Your task to perform on an android device: turn on location history Image 0: 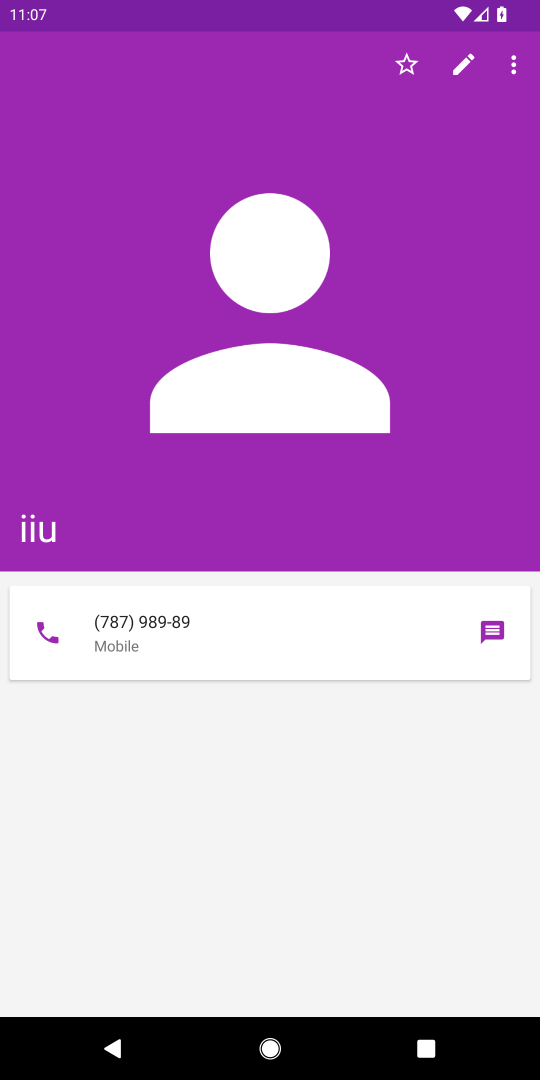
Step 0: press home button
Your task to perform on an android device: turn on location history Image 1: 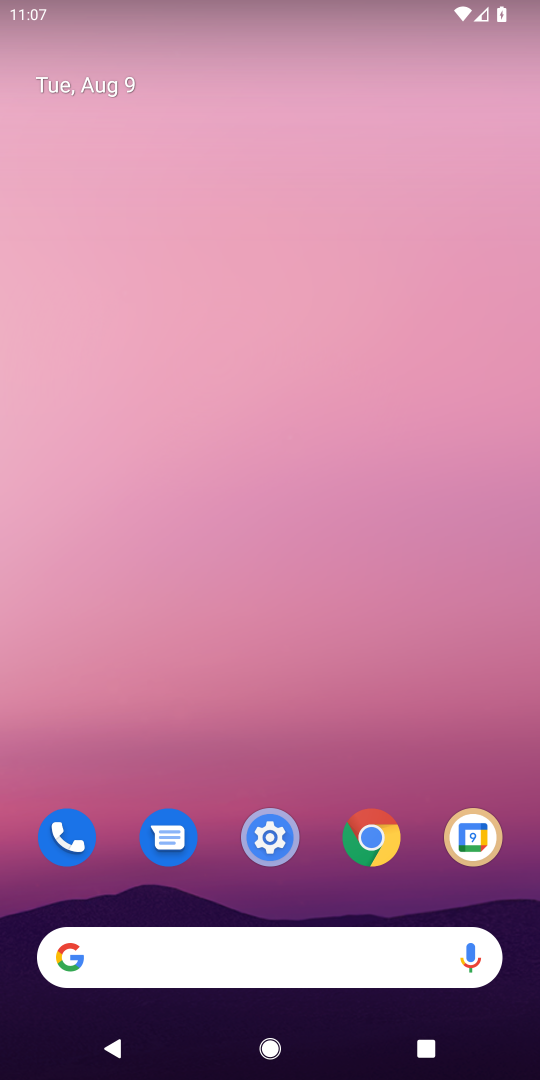
Step 1: drag from (323, 863) to (310, 202)
Your task to perform on an android device: turn on location history Image 2: 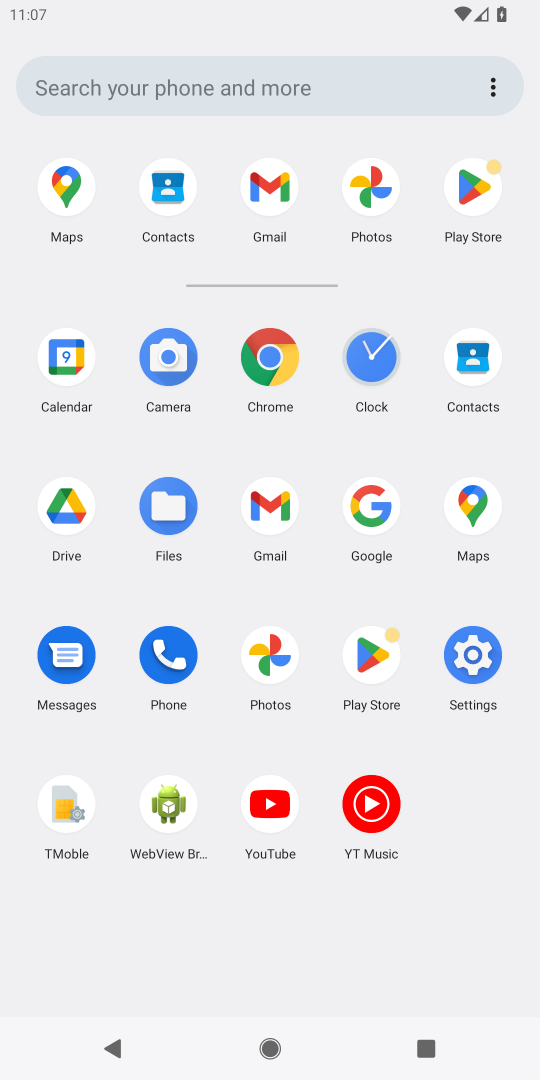
Step 2: click (471, 646)
Your task to perform on an android device: turn on location history Image 3: 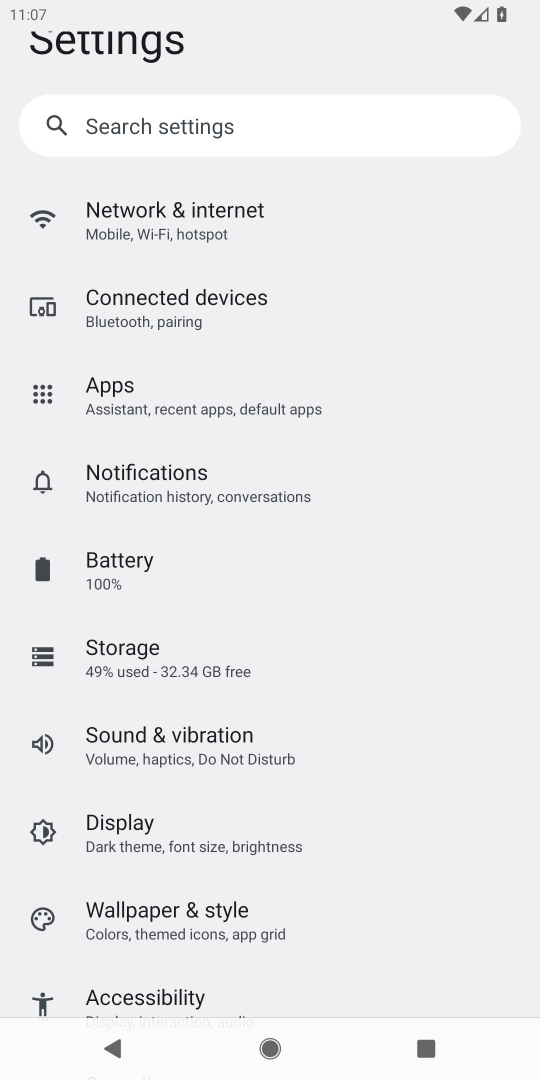
Step 3: drag from (131, 911) to (150, 478)
Your task to perform on an android device: turn on location history Image 4: 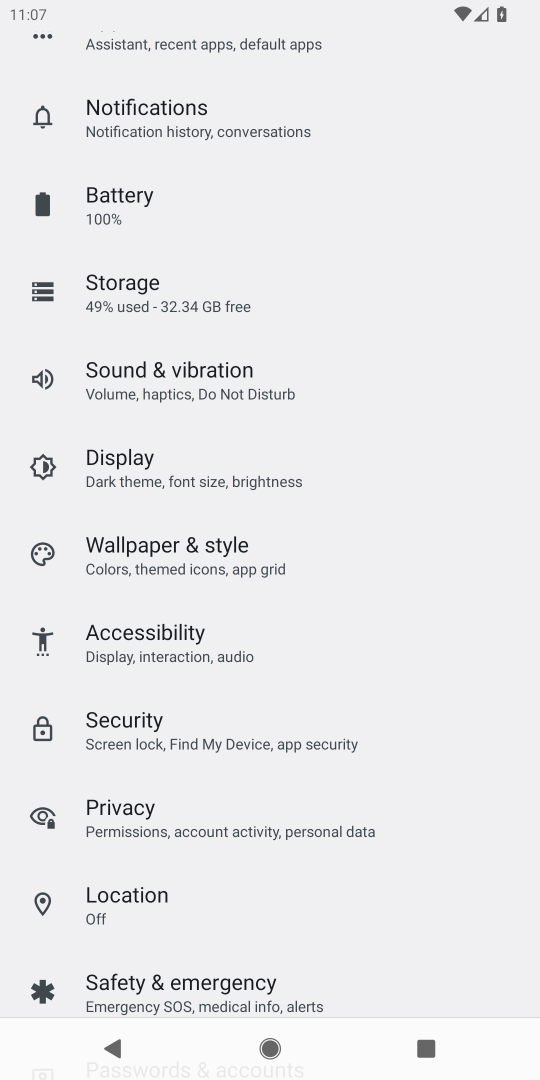
Step 4: click (153, 892)
Your task to perform on an android device: turn on location history Image 5: 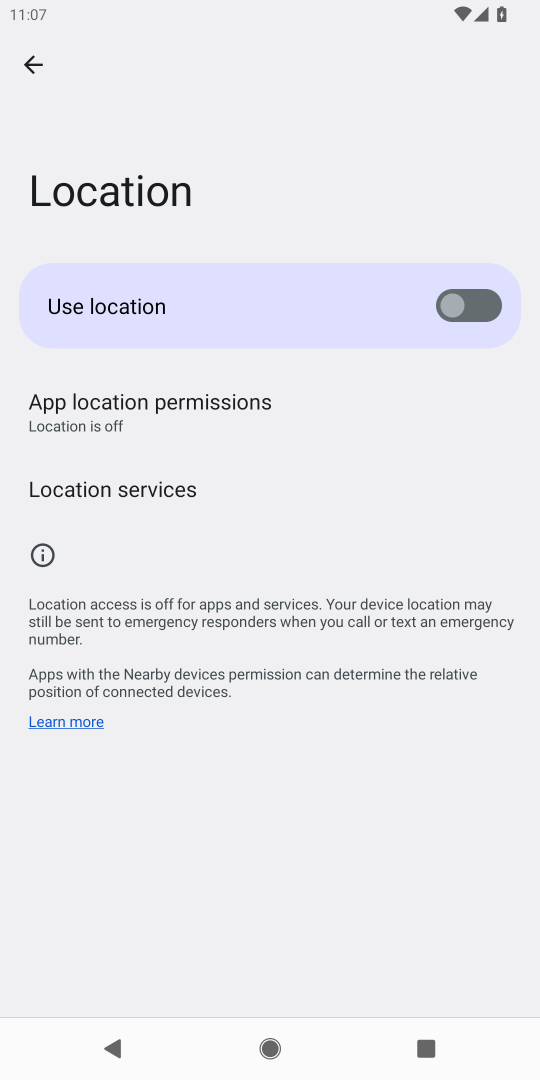
Step 5: click (140, 482)
Your task to perform on an android device: turn on location history Image 6: 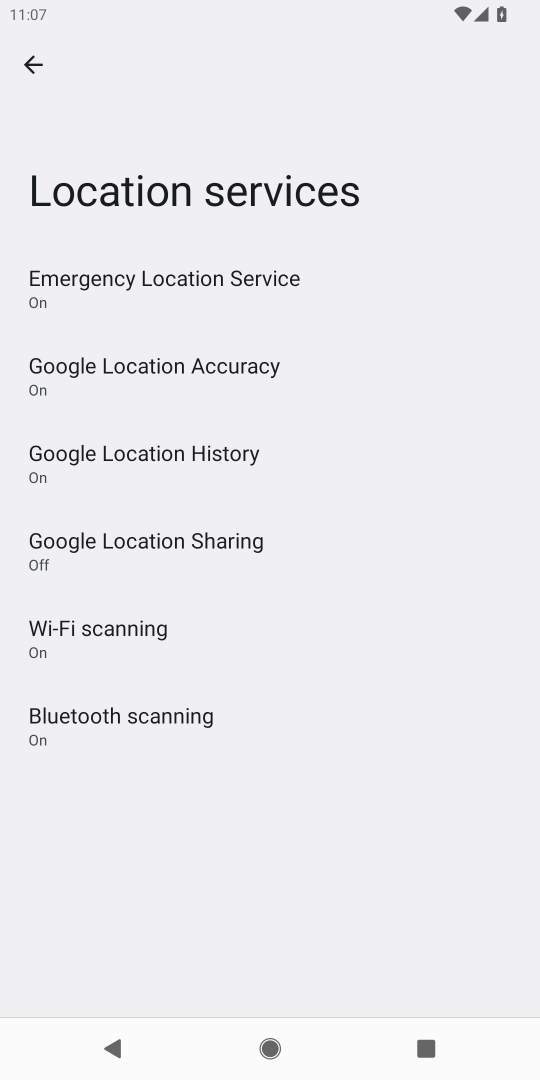
Step 6: click (148, 444)
Your task to perform on an android device: turn on location history Image 7: 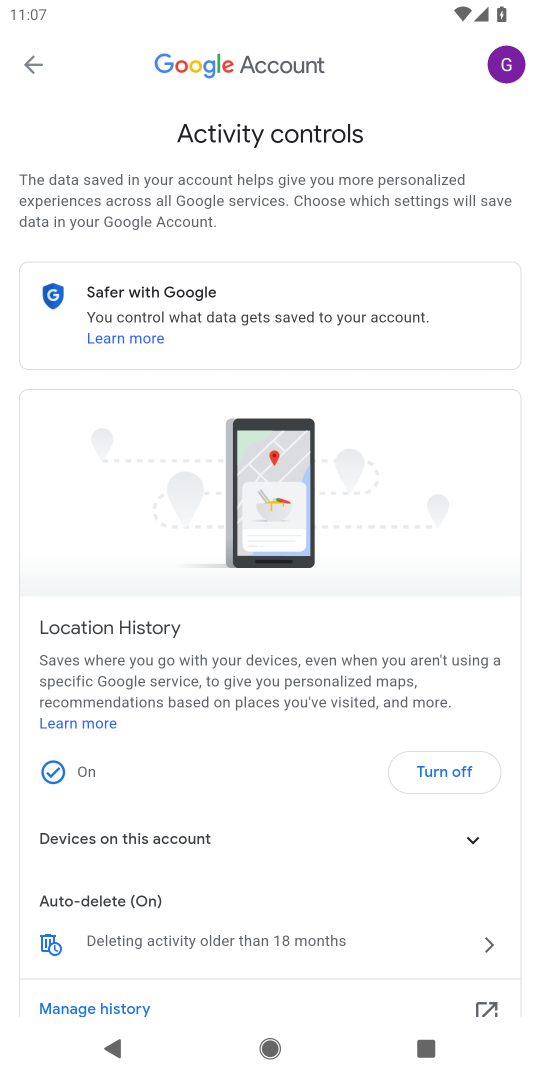
Step 7: task complete